Your task to perform on an android device: Add razer blade to the cart on newegg.com Image 0: 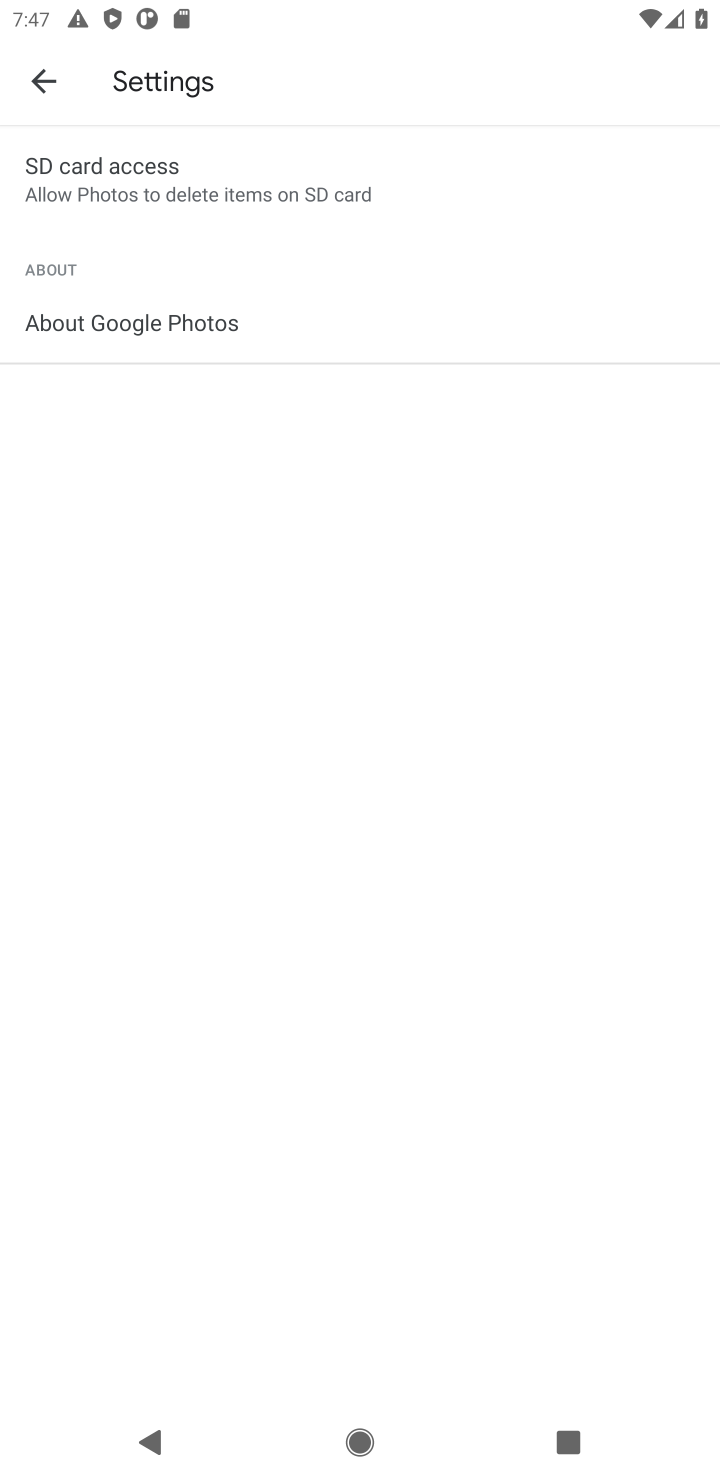
Step 0: task complete